Your task to perform on an android device: Go to Maps Image 0: 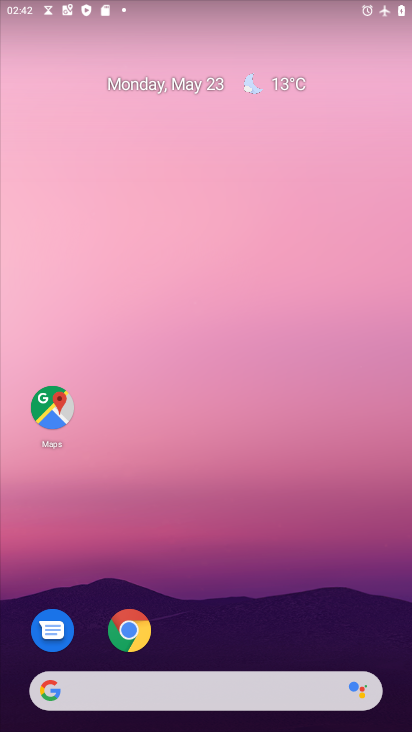
Step 0: click (53, 406)
Your task to perform on an android device: Go to Maps Image 1: 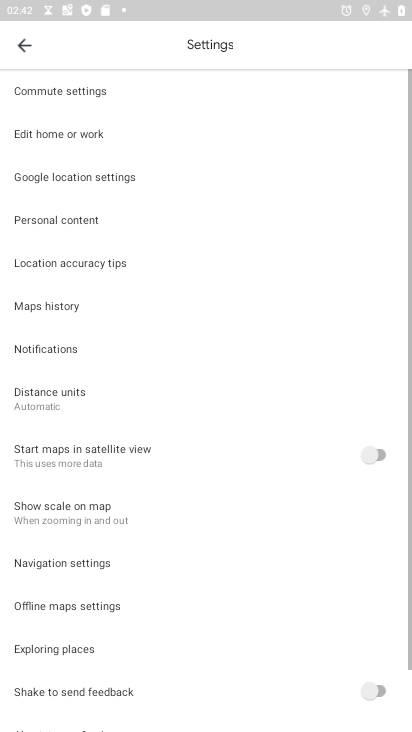
Step 1: task complete